Your task to perform on an android device: turn on airplane mode Image 0: 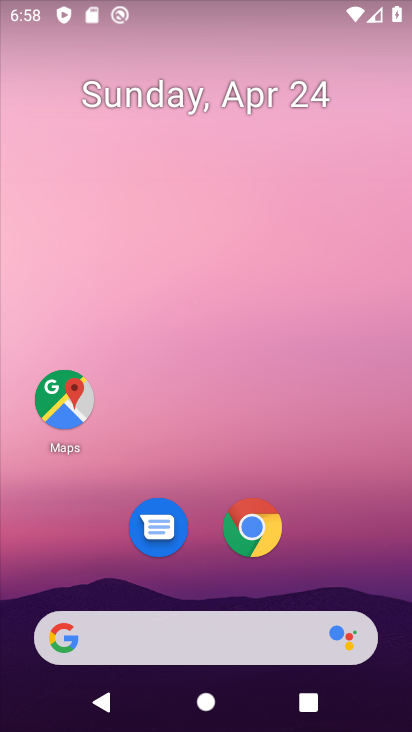
Step 0: drag from (268, 263) to (255, 372)
Your task to perform on an android device: turn on airplane mode Image 1: 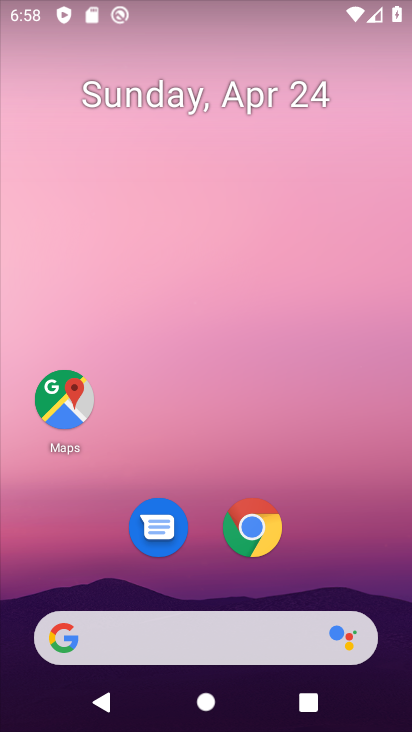
Step 1: drag from (281, 86) to (265, 439)
Your task to perform on an android device: turn on airplane mode Image 2: 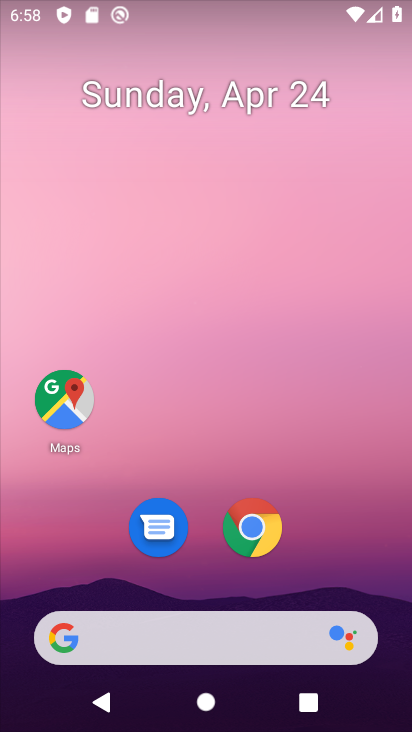
Step 2: drag from (322, 1) to (295, 479)
Your task to perform on an android device: turn on airplane mode Image 3: 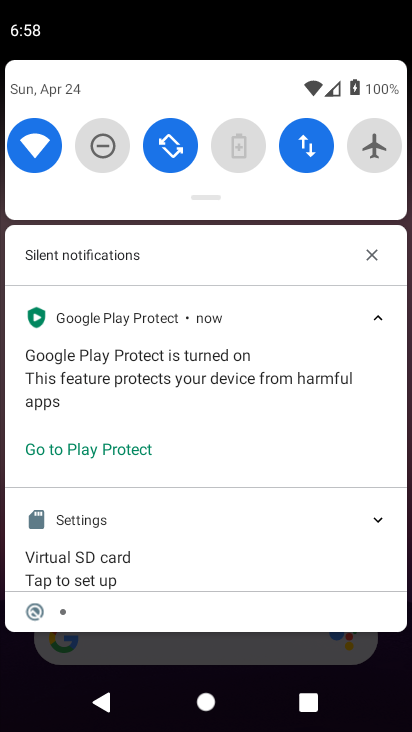
Step 3: click (374, 126)
Your task to perform on an android device: turn on airplane mode Image 4: 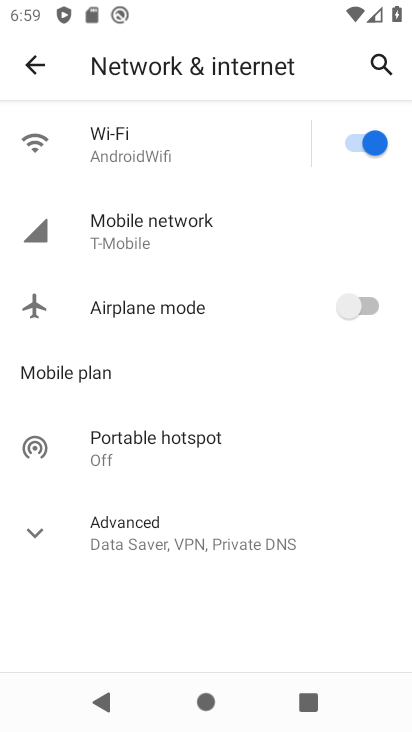
Step 4: click (367, 298)
Your task to perform on an android device: turn on airplane mode Image 5: 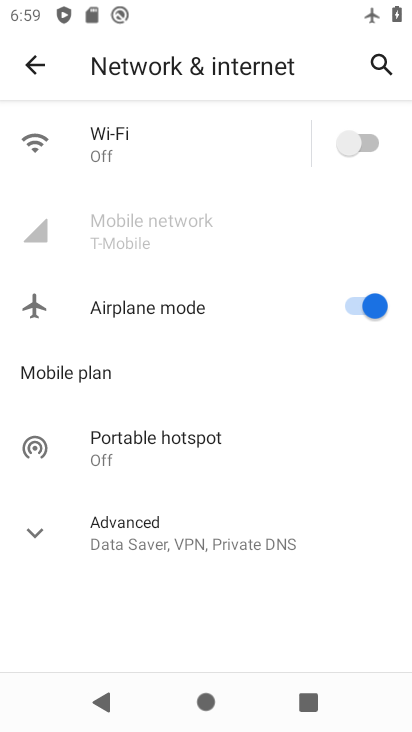
Step 5: task complete